Your task to perform on an android device: choose inbox layout in the gmail app Image 0: 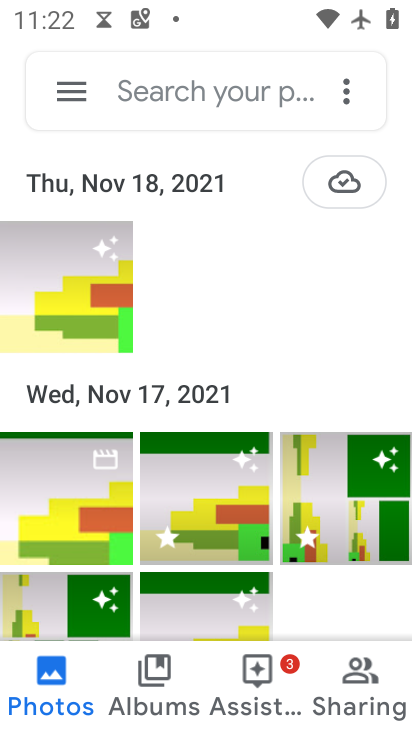
Step 0: press home button
Your task to perform on an android device: choose inbox layout in the gmail app Image 1: 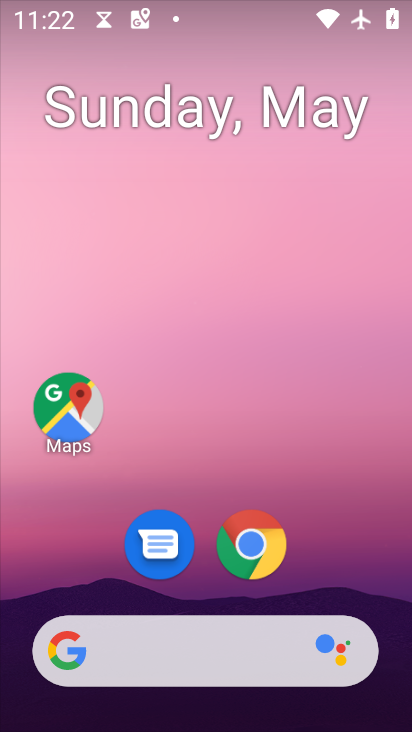
Step 1: drag from (299, 578) to (299, 276)
Your task to perform on an android device: choose inbox layout in the gmail app Image 2: 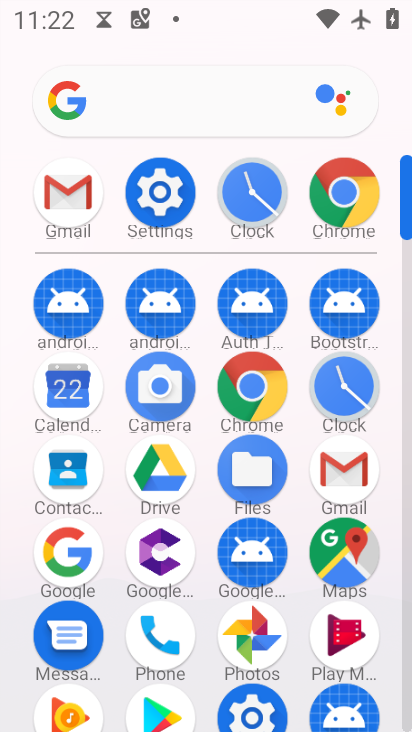
Step 2: click (343, 455)
Your task to perform on an android device: choose inbox layout in the gmail app Image 3: 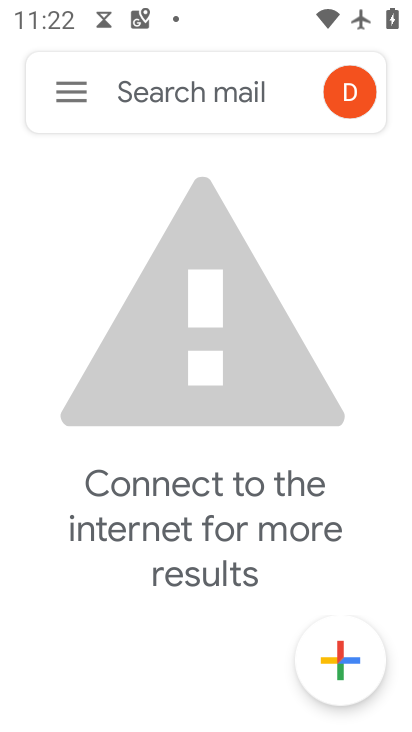
Step 3: click (57, 96)
Your task to perform on an android device: choose inbox layout in the gmail app Image 4: 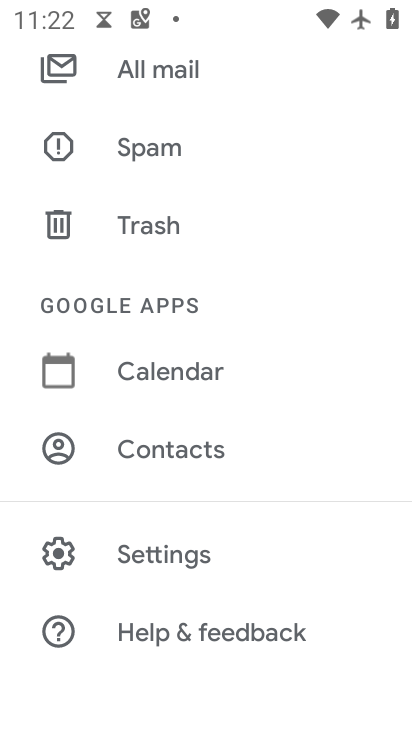
Step 4: click (189, 554)
Your task to perform on an android device: choose inbox layout in the gmail app Image 5: 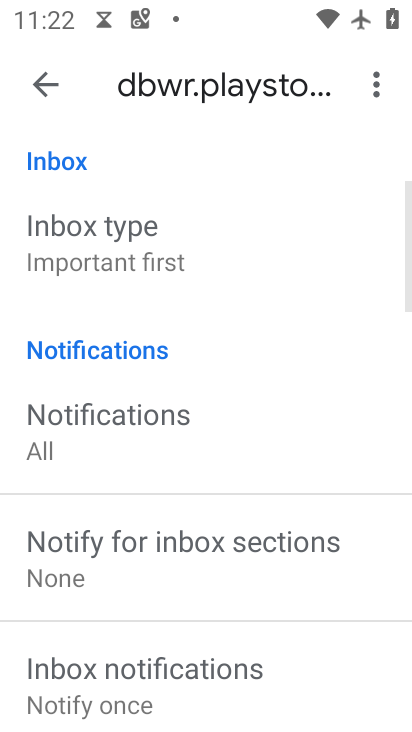
Step 5: drag from (154, 583) to (164, 436)
Your task to perform on an android device: choose inbox layout in the gmail app Image 6: 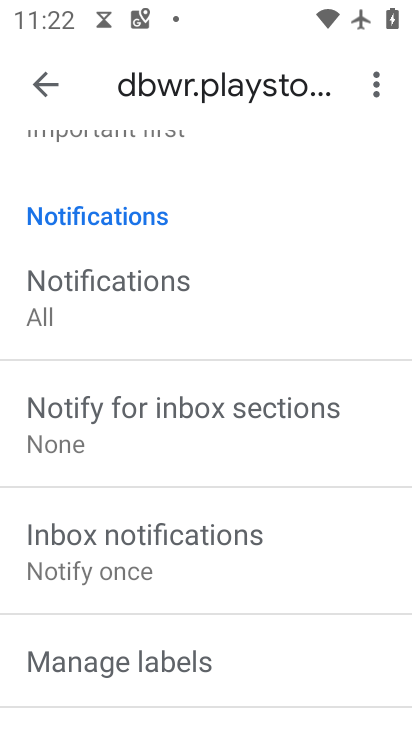
Step 6: drag from (252, 238) to (251, 487)
Your task to perform on an android device: choose inbox layout in the gmail app Image 7: 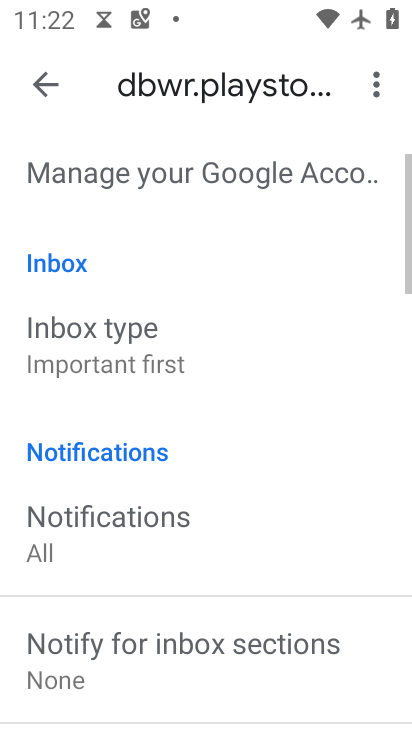
Step 7: click (153, 337)
Your task to perform on an android device: choose inbox layout in the gmail app Image 8: 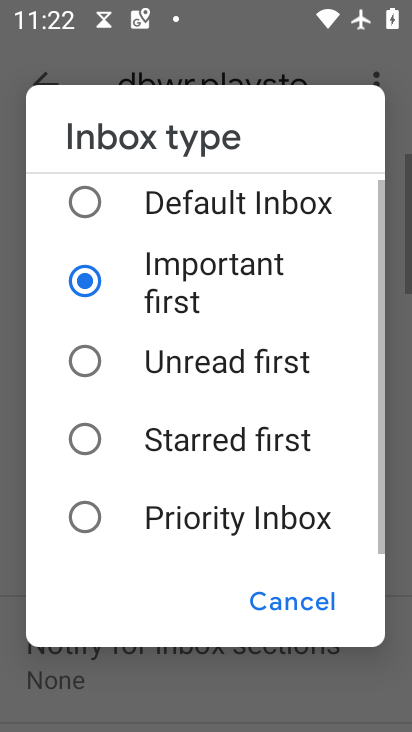
Step 8: click (171, 366)
Your task to perform on an android device: choose inbox layout in the gmail app Image 9: 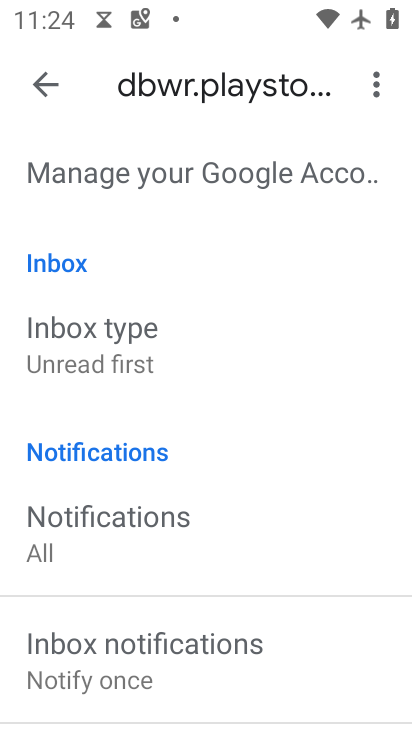
Step 9: task complete